Your task to perform on an android device: open a bookmark in the chrome app Image 0: 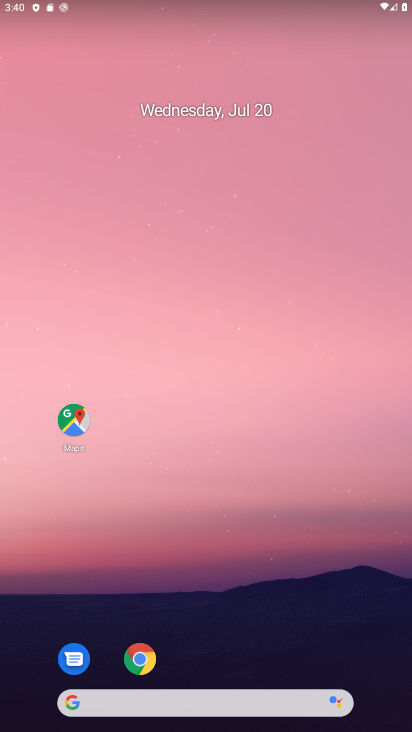
Step 0: drag from (255, 650) to (330, 173)
Your task to perform on an android device: open a bookmark in the chrome app Image 1: 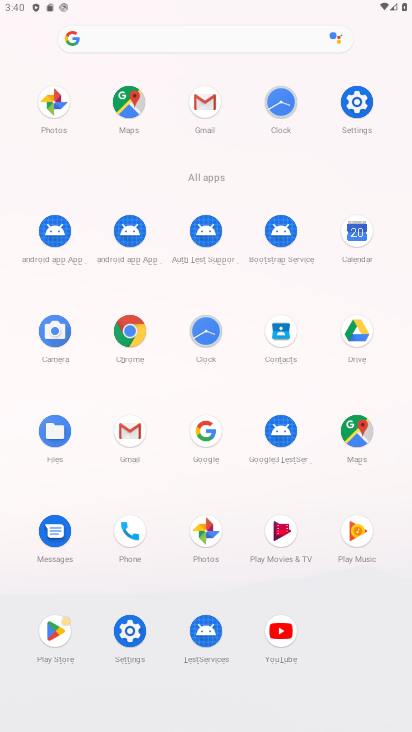
Step 1: click (136, 341)
Your task to perform on an android device: open a bookmark in the chrome app Image 2: 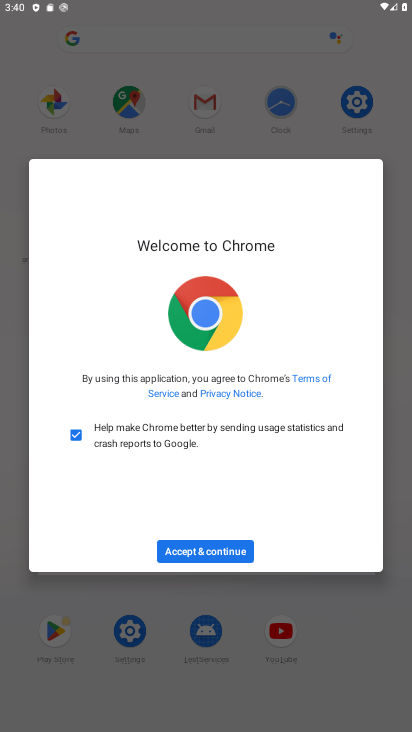
Step 2: click (188, 548)
Your task to perform on an android device: open a bookmark in the chrome app Image 3: 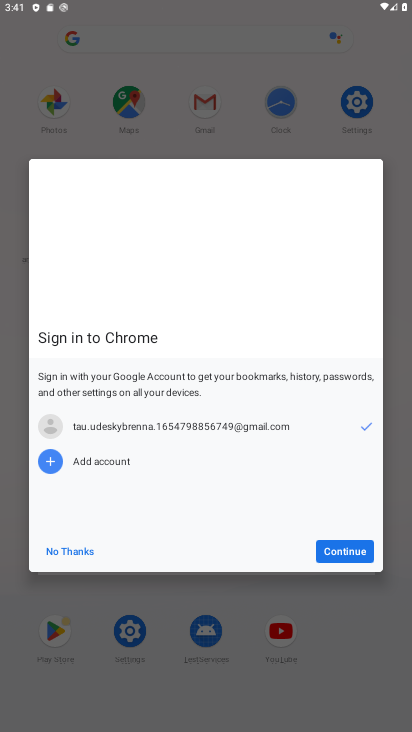
Step 3: click (330, 544)
Your task to perform on an android device: open a bookmark in the chrome app Image 4: 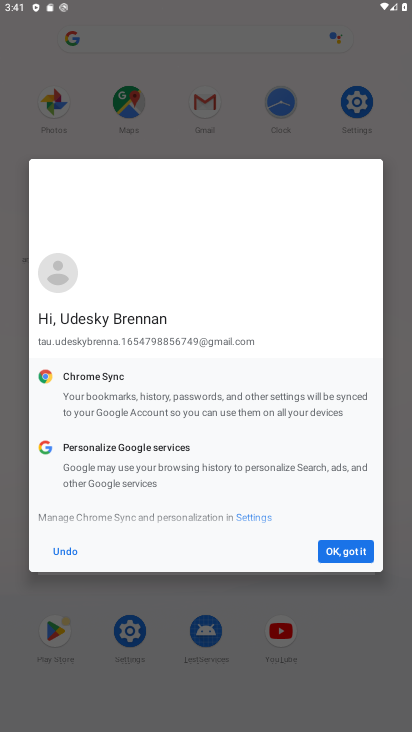
Step 4: click (347, 557)
Your task to perform on an android device: open a bookmark in the chrome app Image 5: 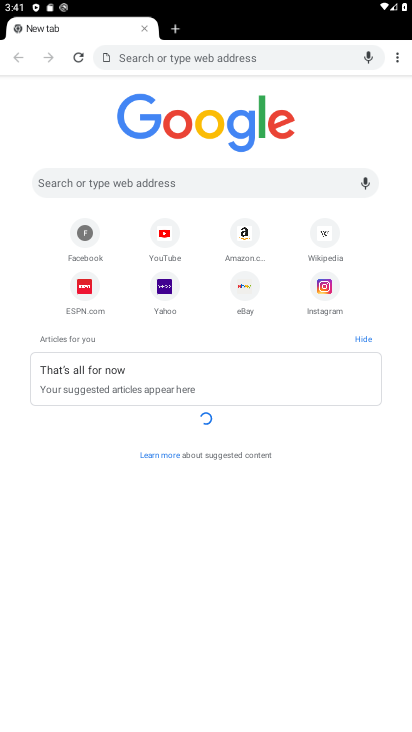
Step 5: click (347, 557)
Your task to perform on an android device: open a bookmark in the chrome app Image 6: 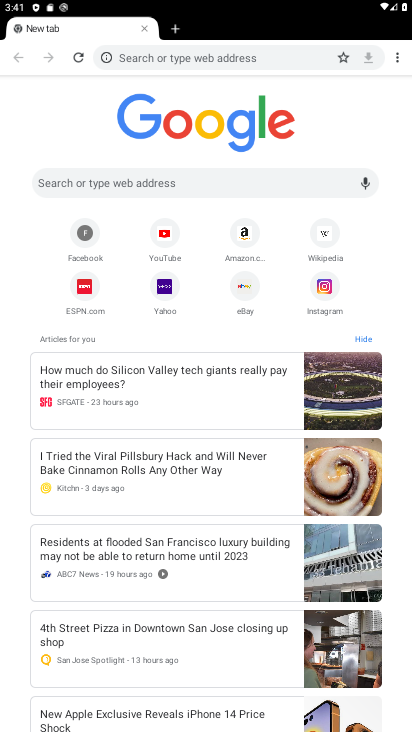
Step 6: click (401, 57)
Your task to perform on an android device: open a bookmark in the chrome app Image 7: 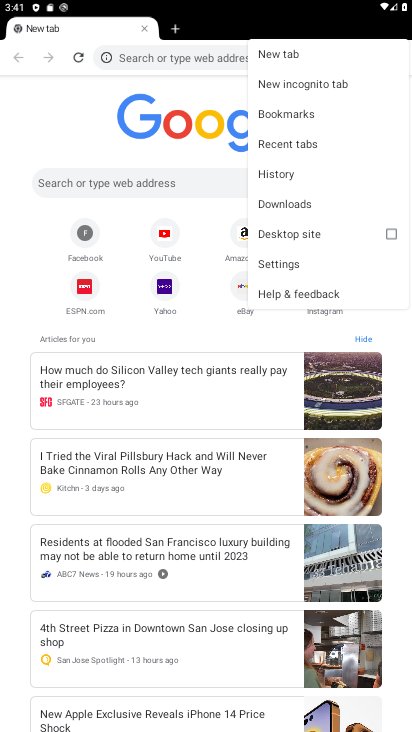
Step 7: click (317, 274)
Your task to perform on an android device: open a bookmark in the chrome app Image 8: 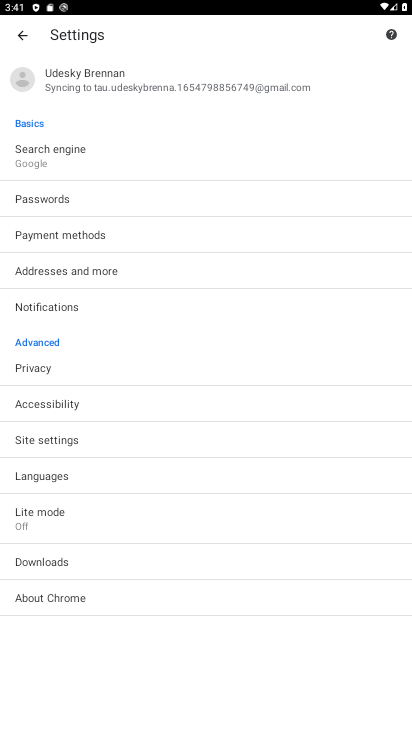
Step 8: press back button
Your task to perform on an android device: open a bookmark in the chrome app Image 9: 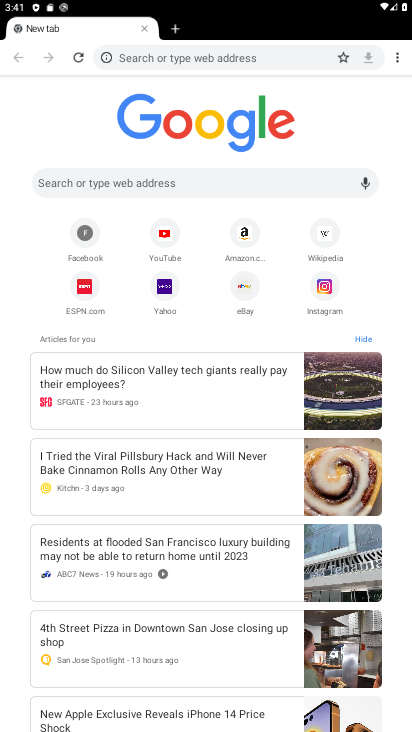
Step 9: drag from (391, 52) to (354, 113)
Your task to perform on an android device: open a bookmark in the chrome app Image 10: 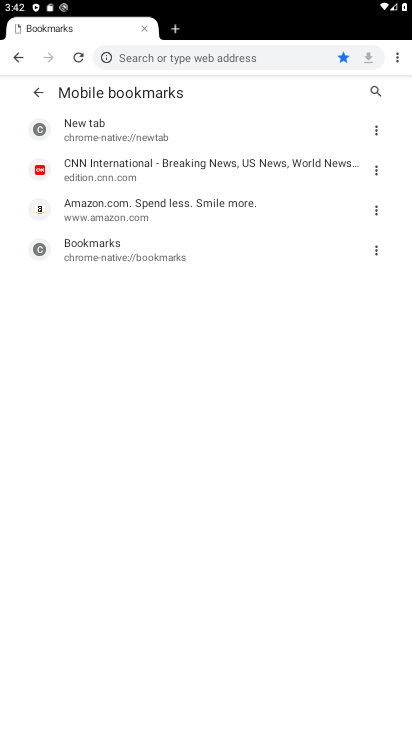
Step 10: click (267, 206)
Your task to perform on an android device: open a bookmark in the chrome app Image 11: 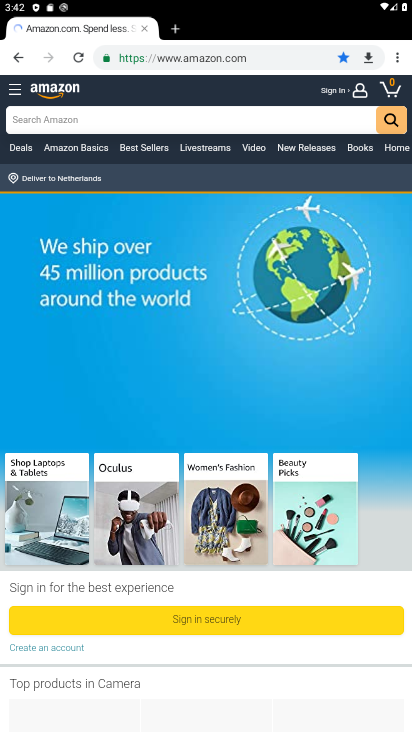
Step 11: task complete